Your task to perform on an android device: check google app version Image 0: 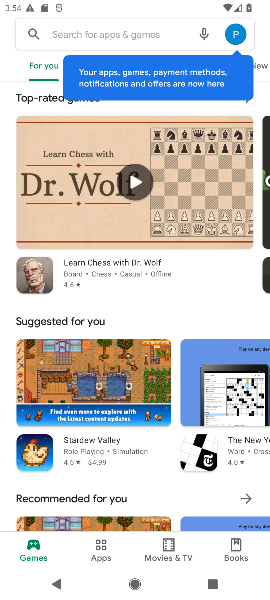
Step 0: press home button
Your task to perform on an android device: check google app version Image 1: 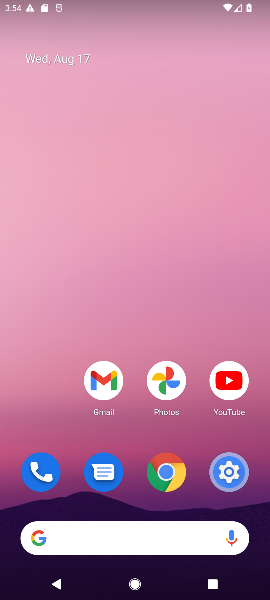
Step 1: click (41, 532)
Your task to perform on an android device: check google app version Image 2: 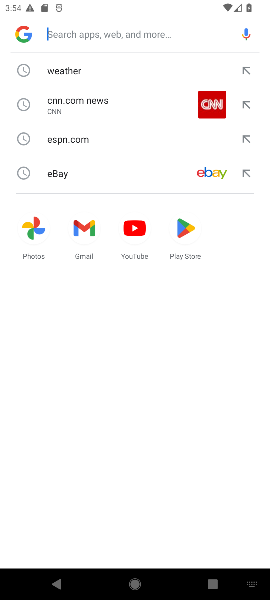
Step 2: click (22, 31)
Your task to perform on an android device: check google app version Image 3: 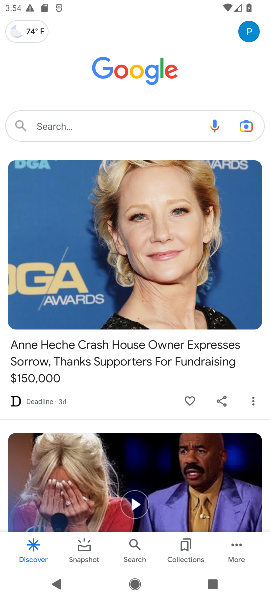
Step 3: click (227, 544)
Your task to perform on an android device: check google app version Image 4: 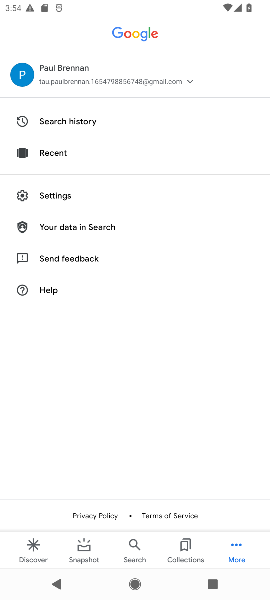
Step 4: click (54, 201)
Your task to perform on an android device: check google app version Image 5: 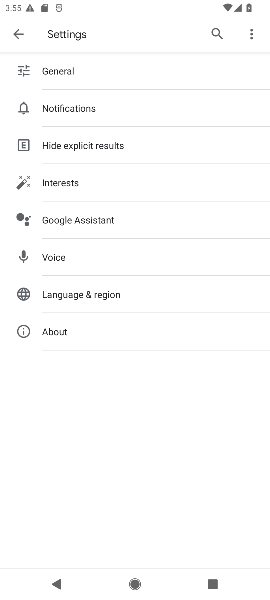
Step 5: click (63, 330)
Your task to perform on an android device: check google app version Image 6: 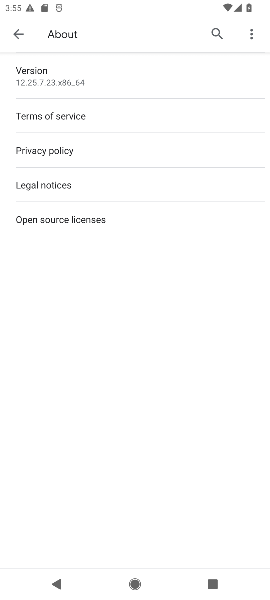
Step 6: task complete